Your task to perform on an android device: Open Yahoo.com Image 0: 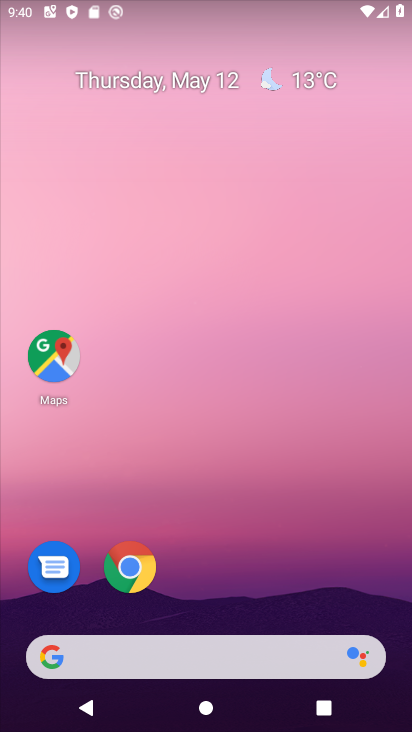
Step 0: drag from (316, 587) to (224, 192)
Your task to perform on an android device: Open Yahoo.com Image 1: 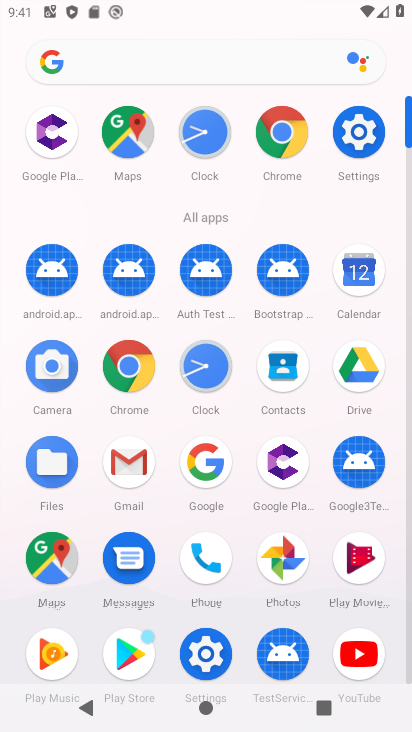
Step 1: click (260, 148)
Your task to perform on an android device: Open Yahoo.com Image 2: 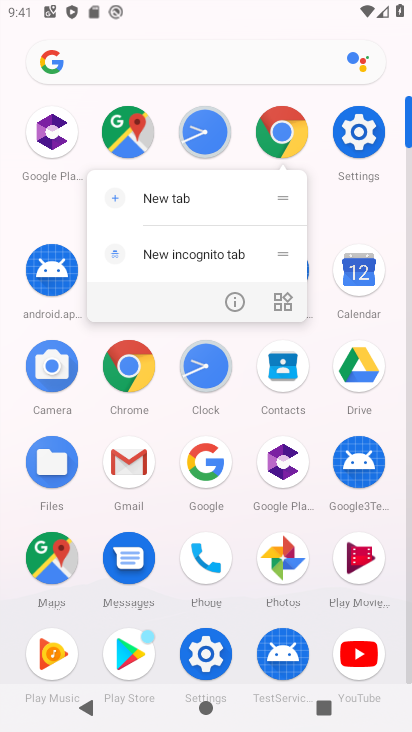
Step 2: click (273, 145)
Your task to perform on an android device: Open Yahoo.com Image 3: 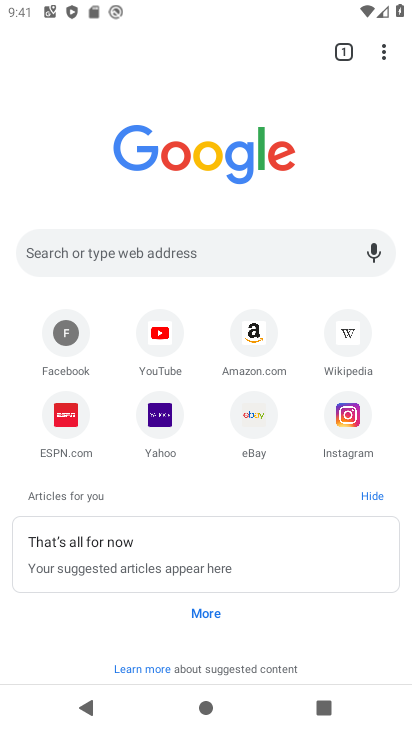
Step 3: click (143, 413)
Your task to perform on an android device: Open Yahoo.com Image 4: 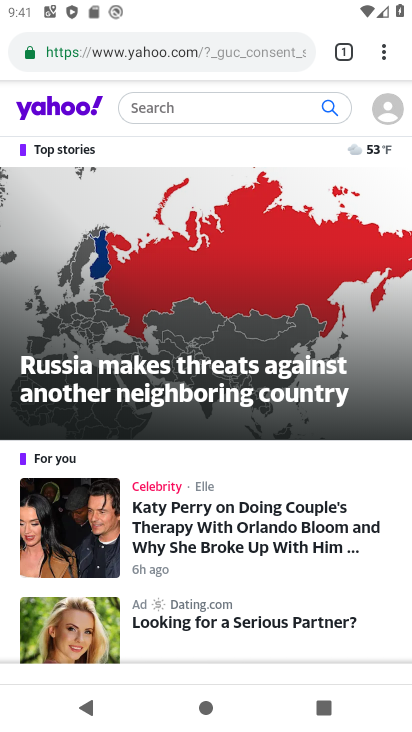
Step 4: task complete